Your task to perform on an android device: Open battery settings Image 0: 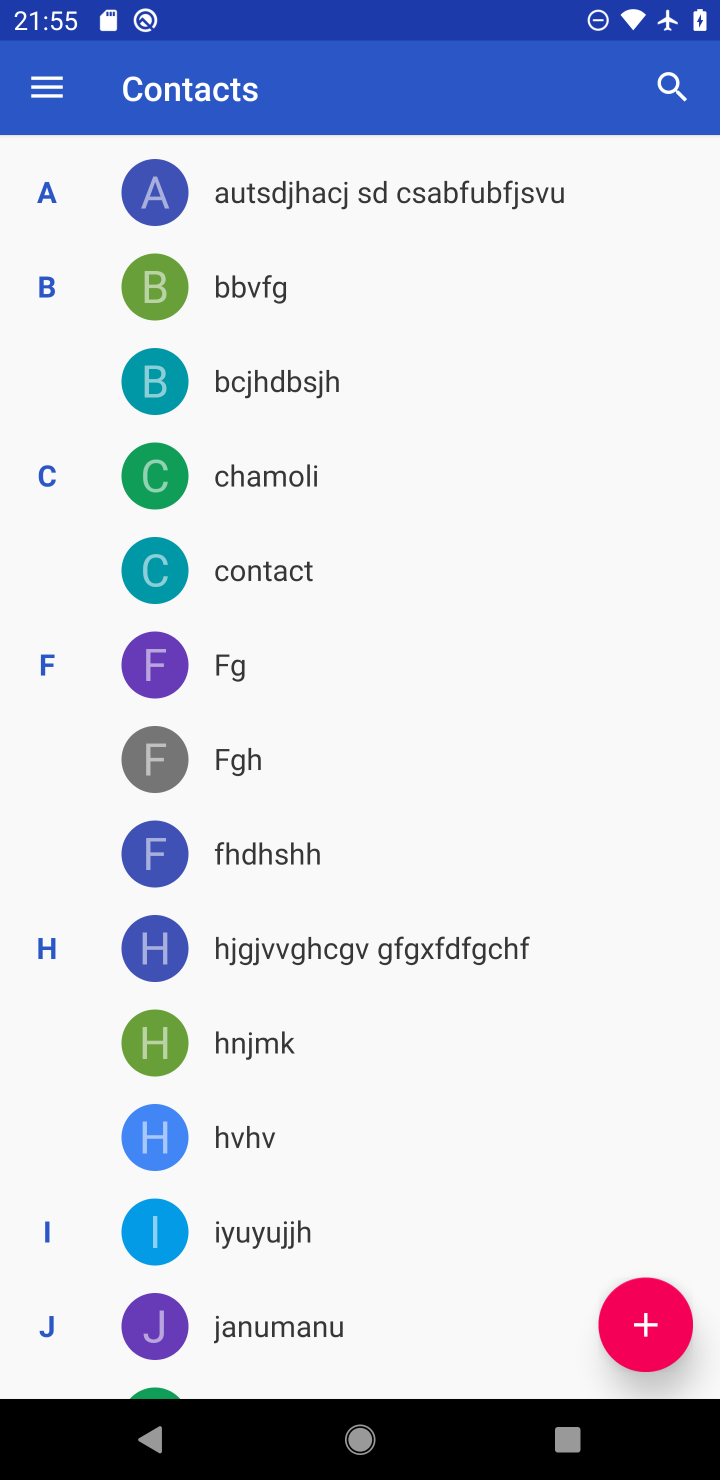
Step 0: press home button
Your task to perform on an android device: Open battery settings Image 1: 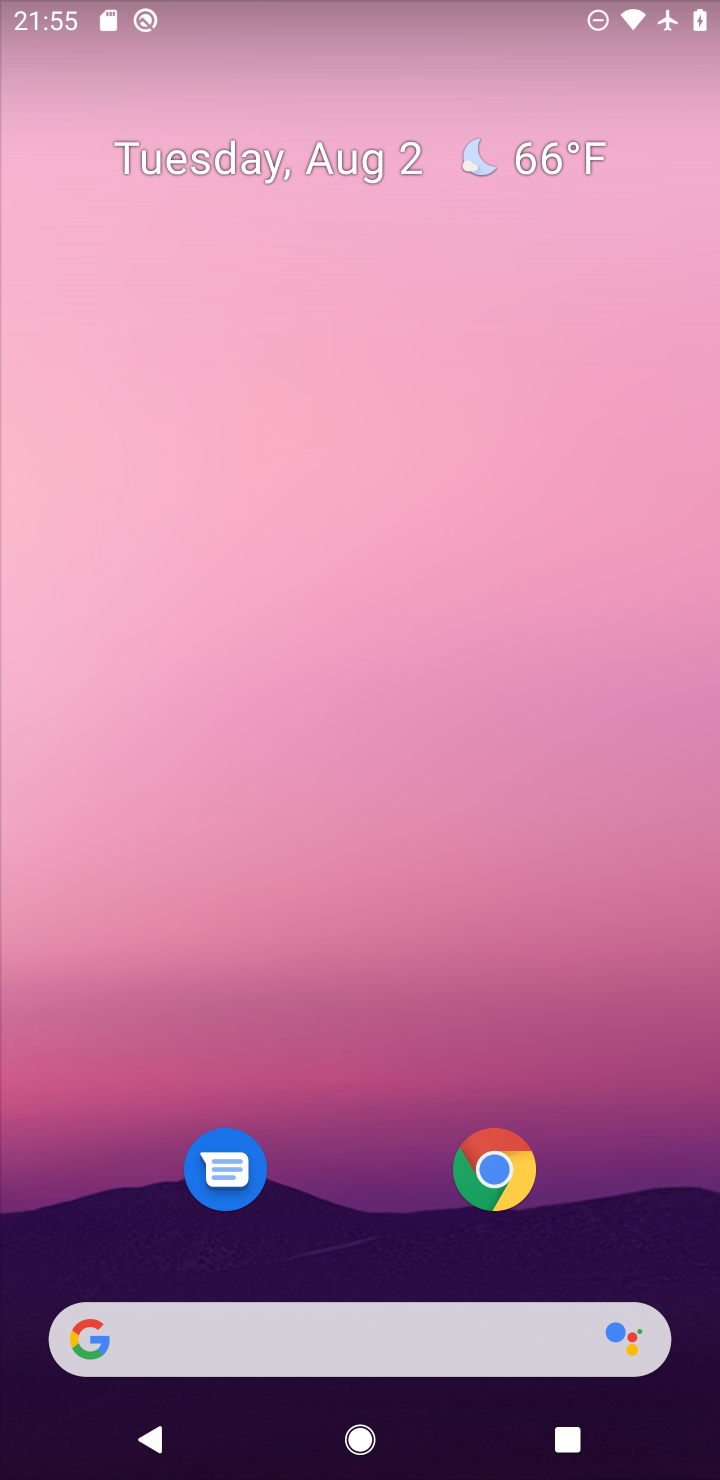
Step 1: drag from (363, 1025) to (373, 53)
Your task to perform on an android device: Open battery settings Image 2: 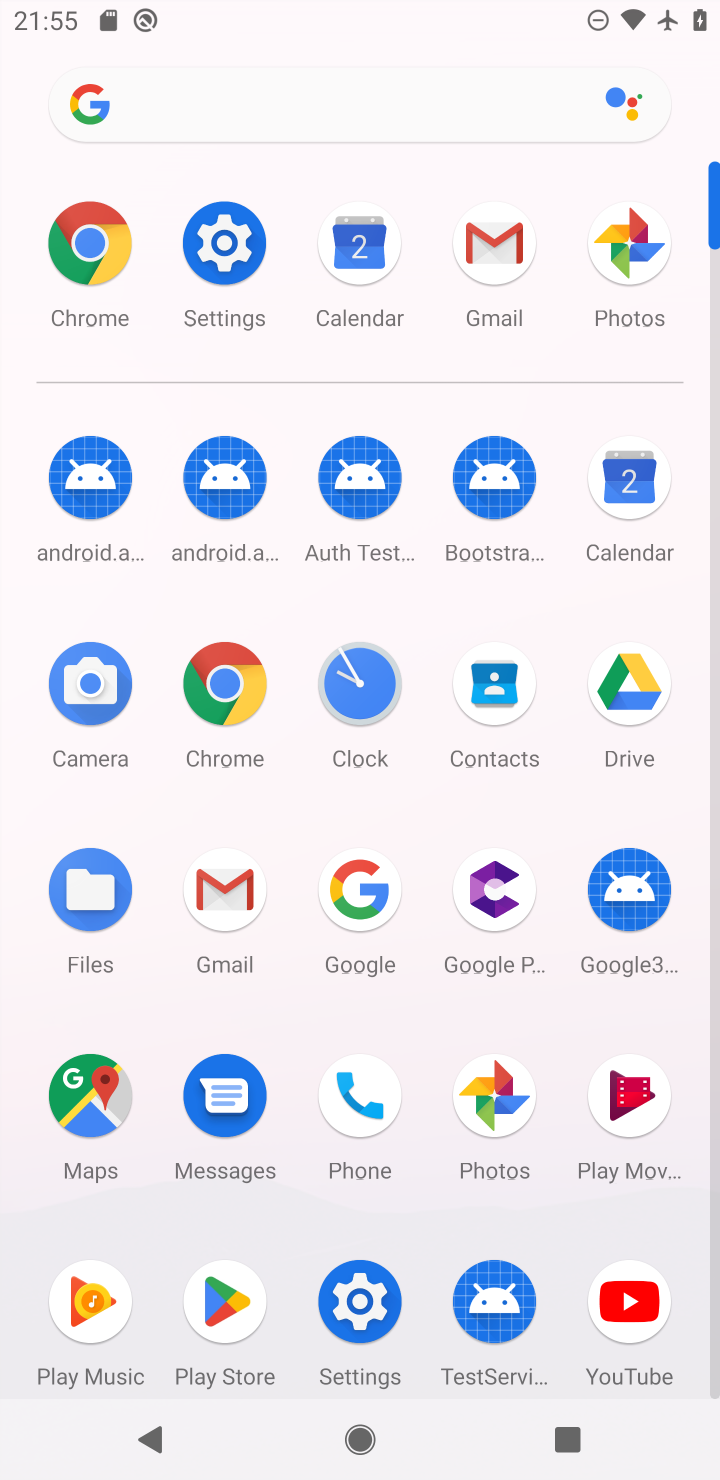
Step 2: click (236, 237)
Your task to perform on an android device: Open battery settings Image 3: 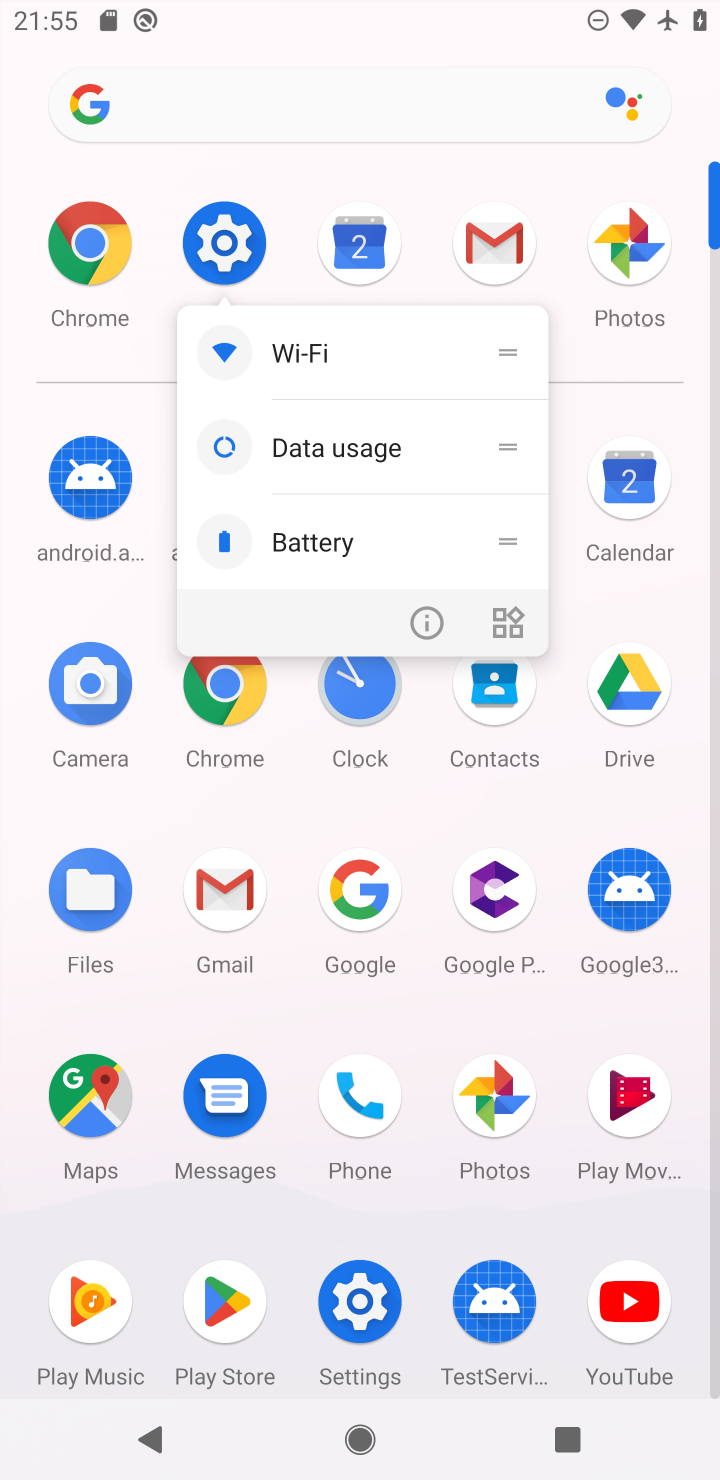
Step 3: click (230, 282)
Your task to perform on an android device: Open battery settings Image 4: 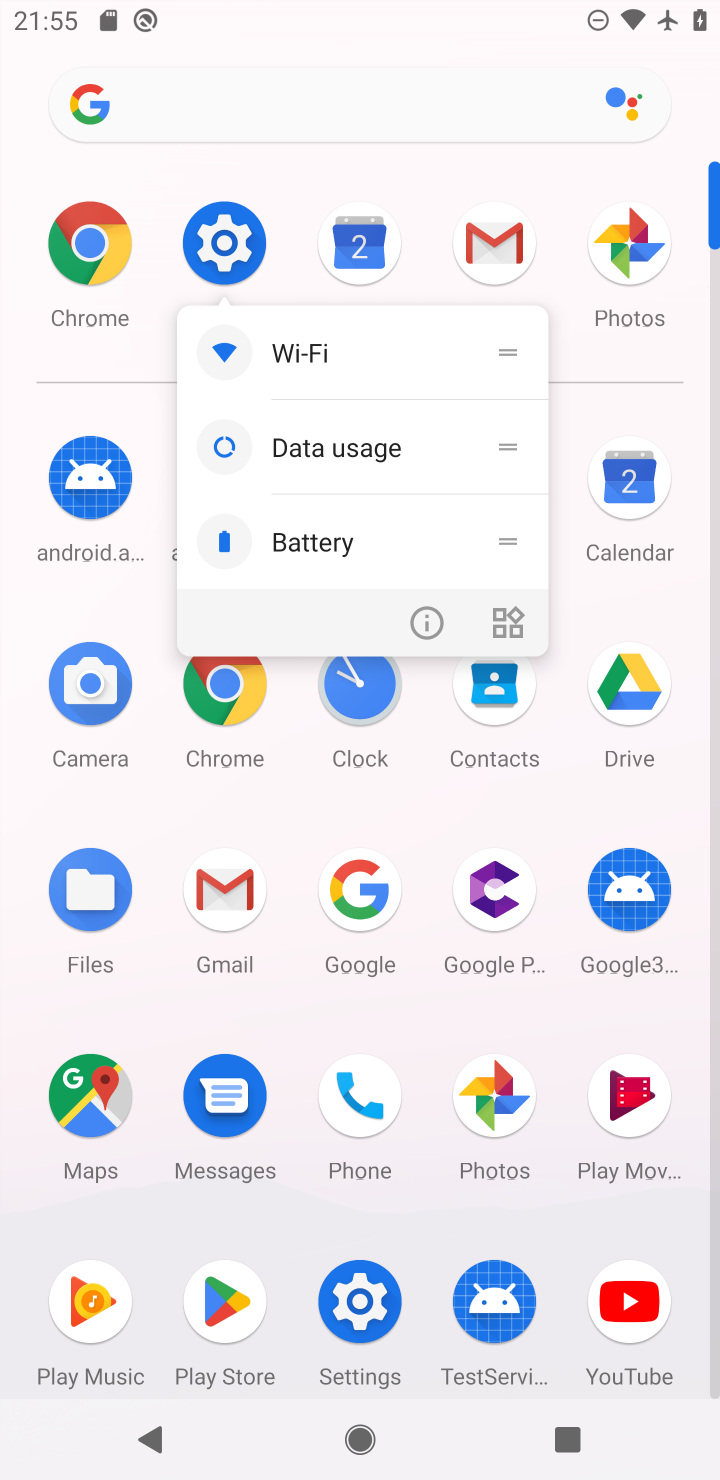
Step 4: click (230, 282)
Your task to perform on an android device: Open battery settings Image 5: 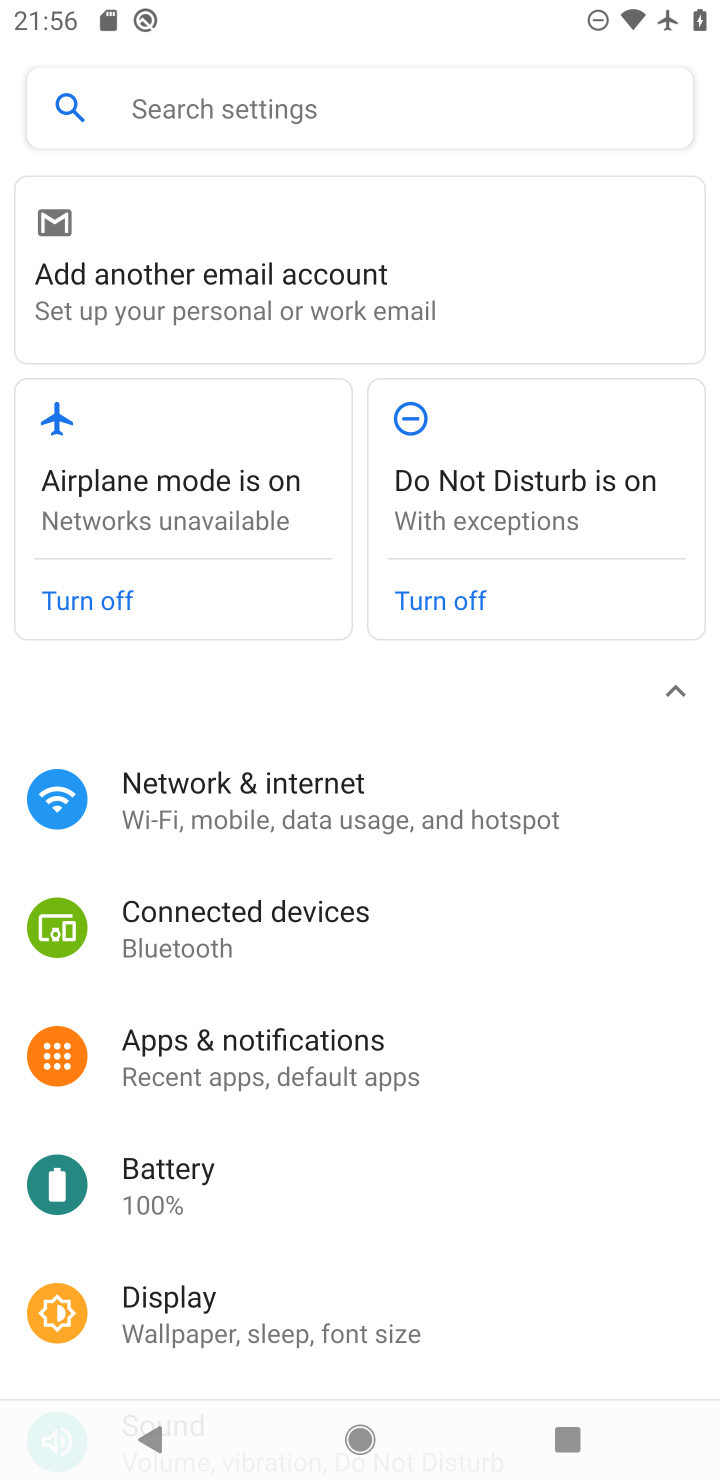
Step 5: click (151, 1197)
Your task to perform on an android device: Open battery settings Image 6: 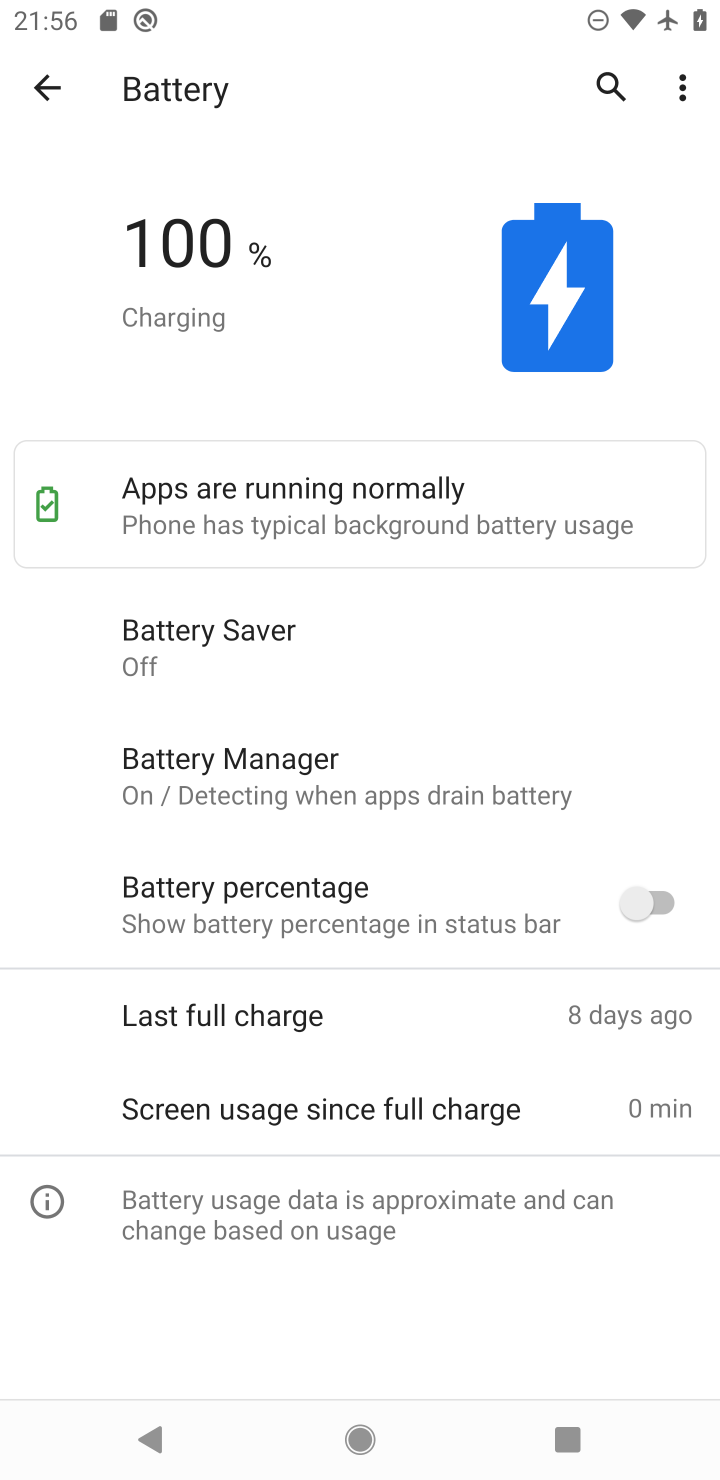
Step 6: task complete